Your task to perform on an android device: star an email in the gmail app Image 0: 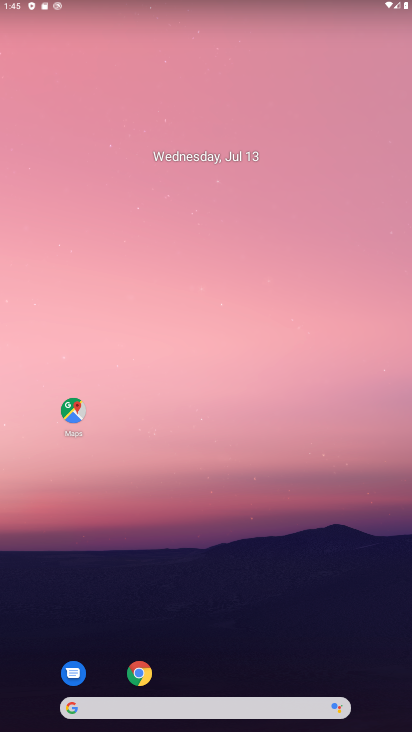
Step 0: drag from (226, 620) to (210, 5)
Your task to perform on an android device: star an email in the gmail app Image 1: 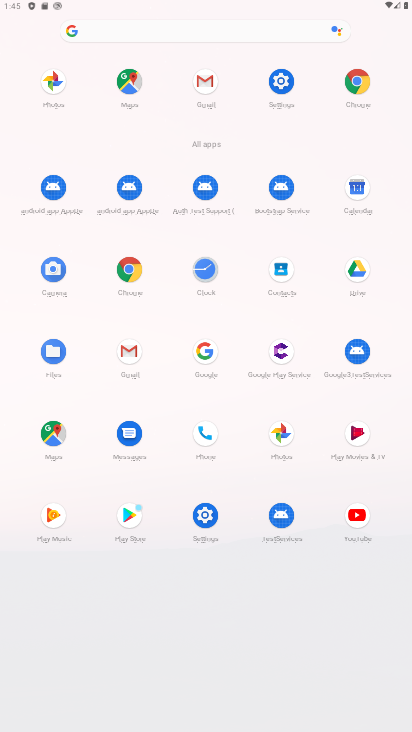
Step 1: click (221, 85)
Your task to perform on an android device: star an email in the gmail app Image 2: 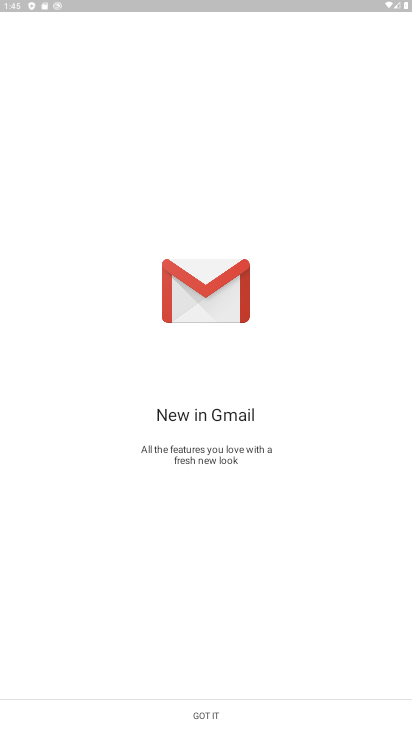
Step 2: click (210, 717)
Your task to perform on an android device: star an email in the gmail app Image 3: 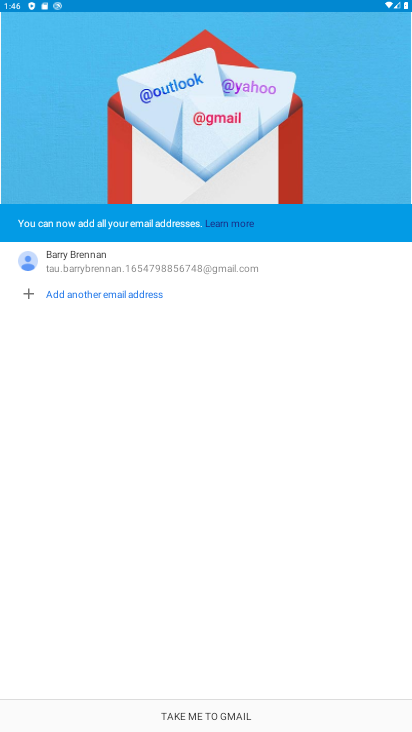
Step 3: click (243, 718)
Your task to perform on an android device: star an email in the gmail app Image 4: 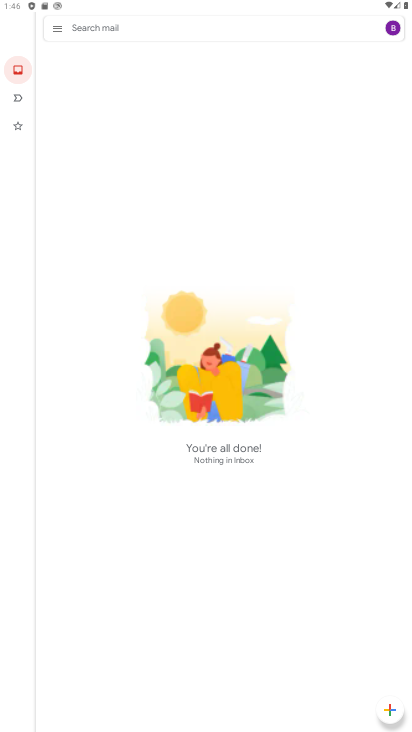
Step 4: task complete